Your task to perform on an android device: Open Chrome and go to settings Image 0: 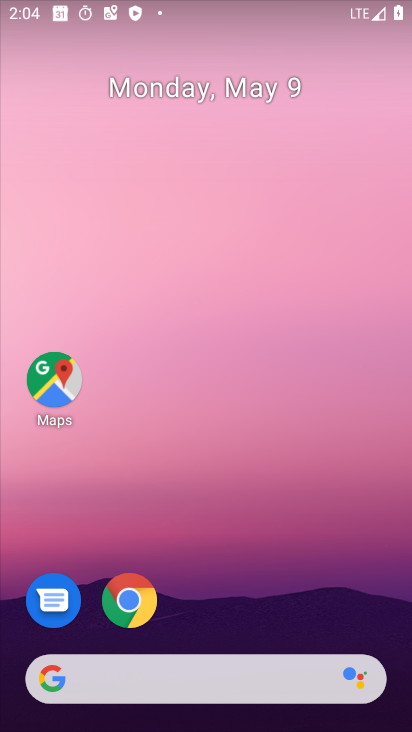
Step 0: drag from (268, 613) to (205, 107)
Your task to perform on an android device: Open Chrome and go to settings Image 1: 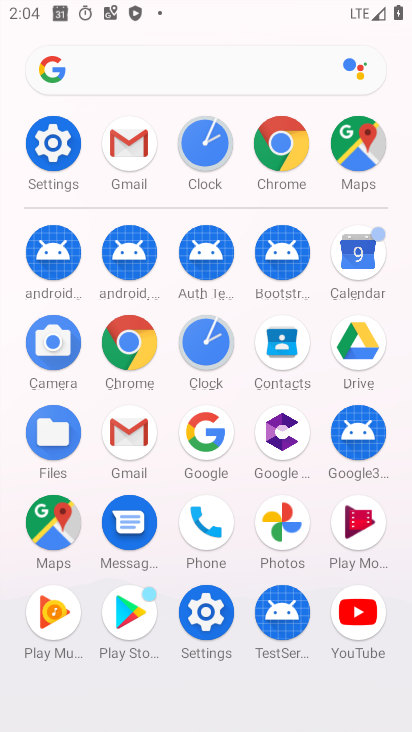
Step 1: click (137, 359)
Your task to perform on an android device: Open Chrome and go to settings Image 2: 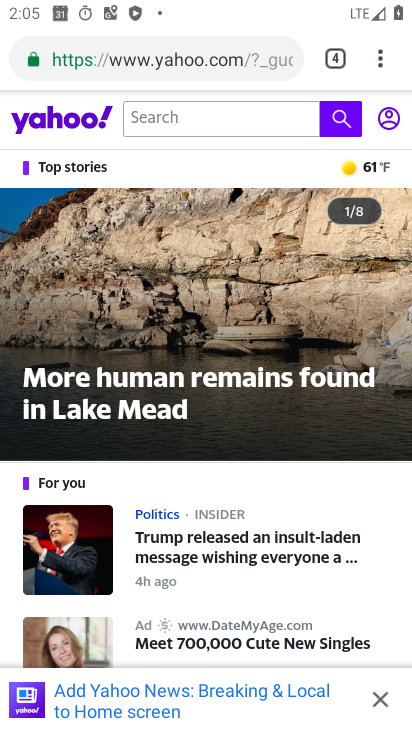
Step 2: click (380, 64)
Your task to perform on an android device: Open Chrome and go to settings Image 3: 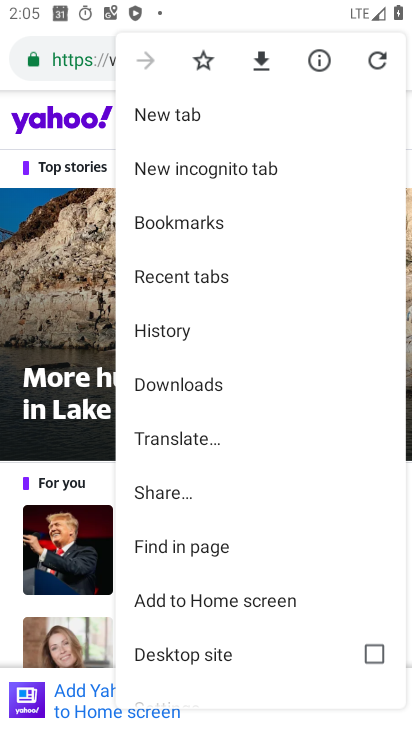
Step 3: drag from (191, 548) to (211, 339)
Your task to perform on an android device: Open Chrome and go to settings Image 4: 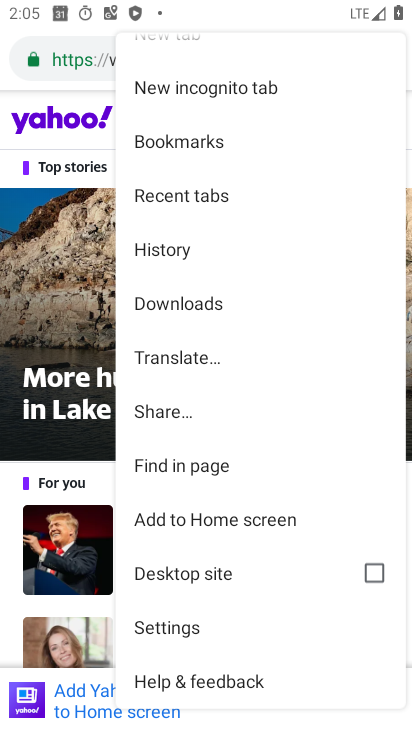
Step 4: click (200, 639)
Your task to perform on an android device: Open Chrome and go to settings Image 5: 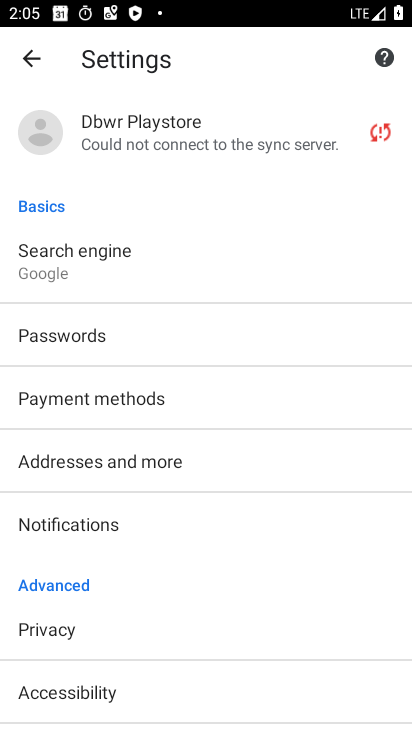
Step 5: task complete